Your task to perform on an android device: Go to CNN.com Image 0: 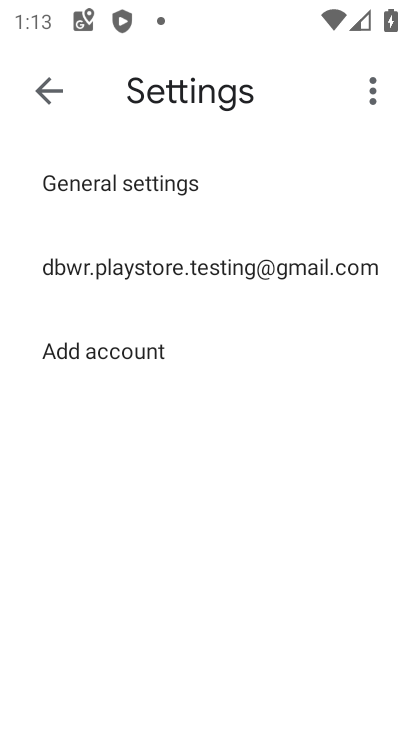
Step 0: press home button
Your task to perform on an android device: Go to CNN.com Image 1: 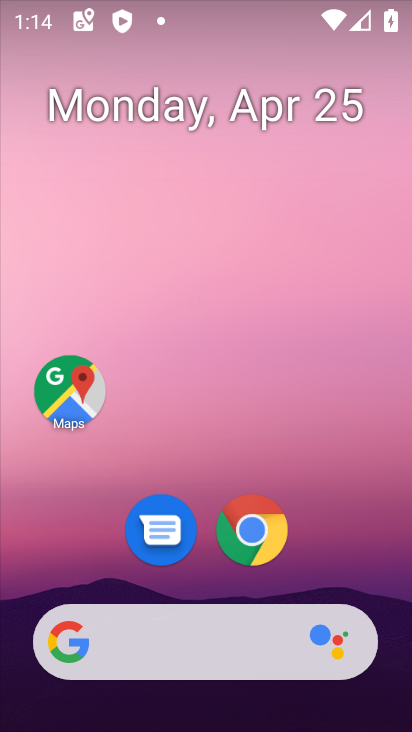
Step 1: drag from (335, 522) to (352, 144)
Your task to perform on an android device: Go to CNN.com Image 2: 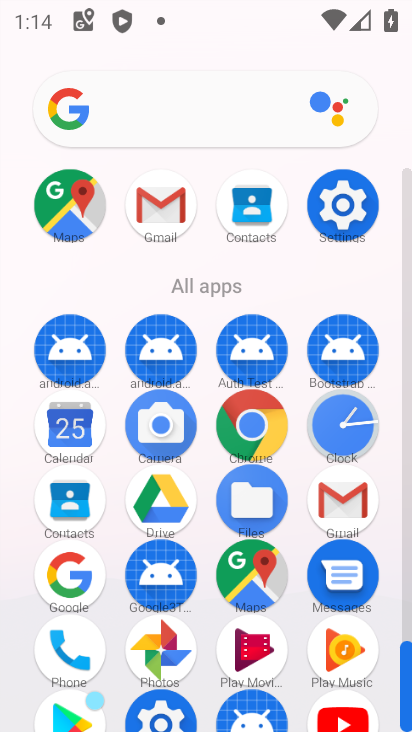
Step 2: click (258, 423)
Your task to perform on an android device: Go to CNN.com Image 3: 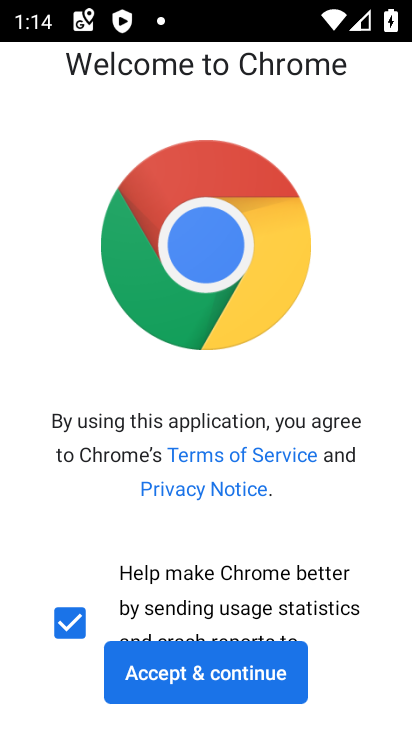
Step 3: click (231, 675)
Your task to perform on an android device: Go to CNN.com Image 4: 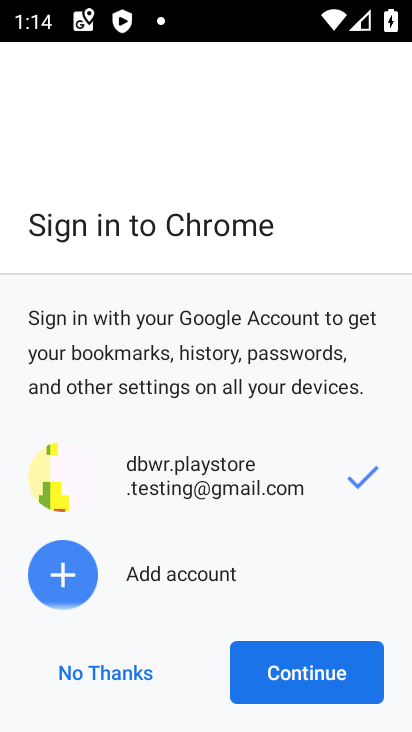
Step 4: click (265, 689)
Your task to perform on an android device: Go to CNN.com Image 5: 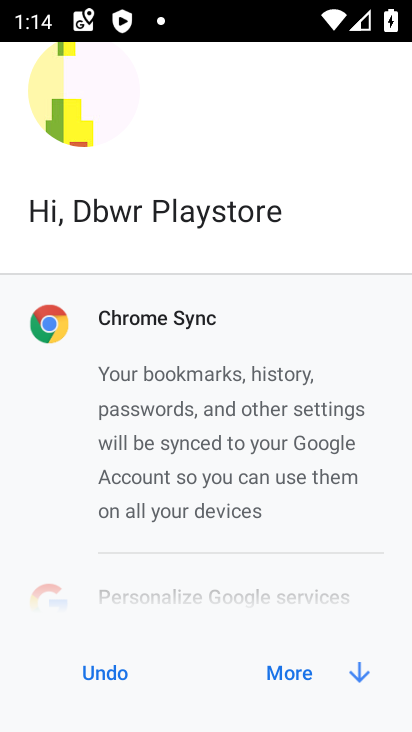
Step 5: click (280, 677)
Your task to perform on an android device: Go to CNN.com Image 6: 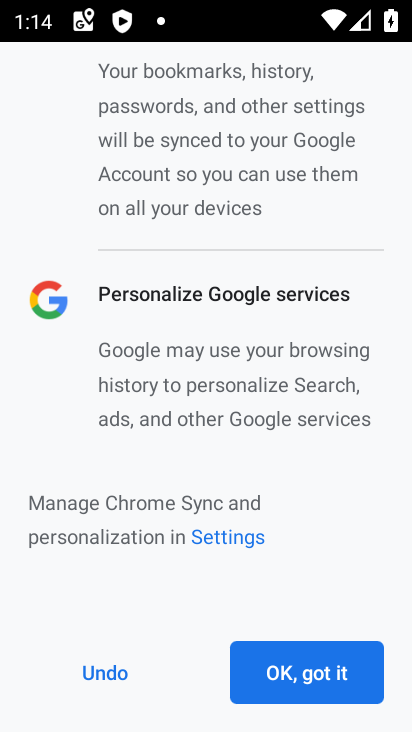
Step 6: click (271, 676)
Your task to perform on an android device: Go to CNN.com Image 7: 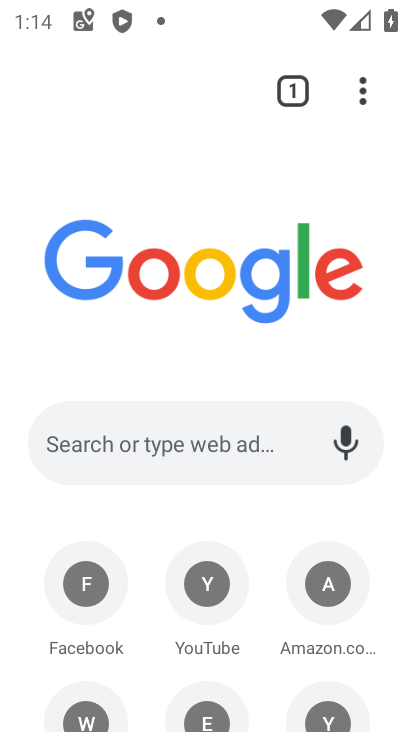
Step 7: click (245, 437)
Your task to perform on an android device: Go to CNN.com Image 8: 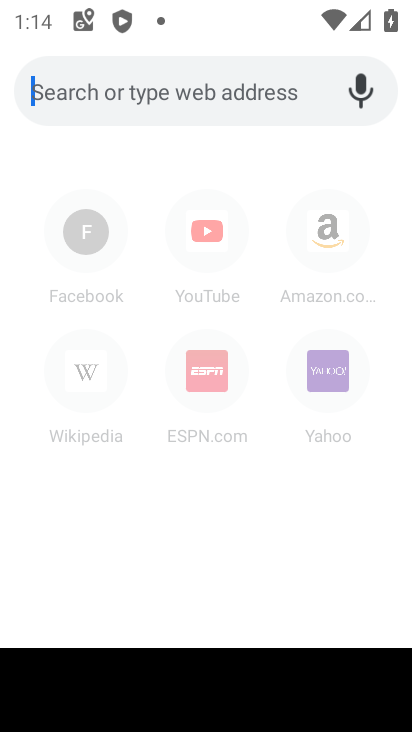
Step 8: type "cnn.com"
Your task to perform on an android device: Go to CNN.com Image 9: 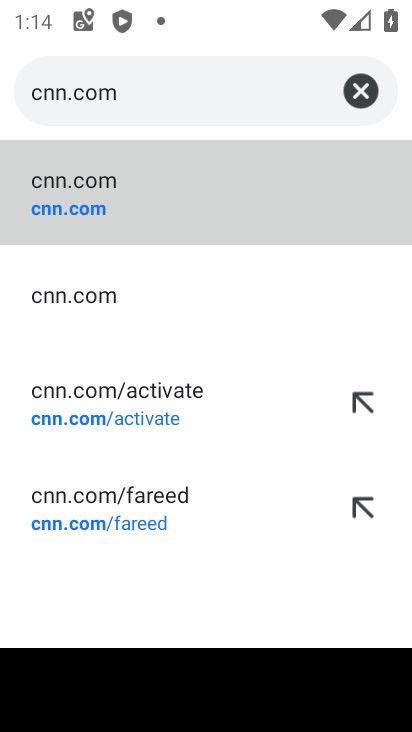
Step 9: click (78, 210)
Your task to perform on an android device: Go to CNN.com Image 10: 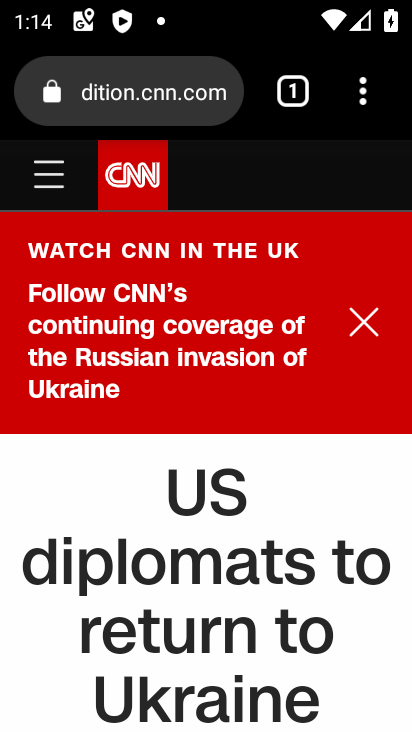
Step 10: task complete